Your task to perform on an android device: turn off location history Image 0: 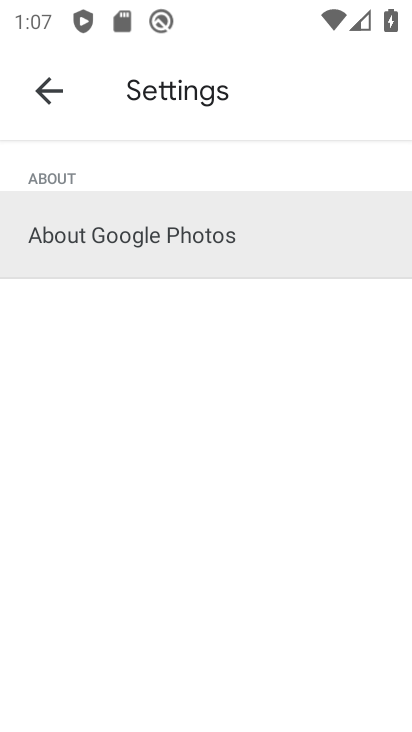
Step 0: press home button
Your task to perform on an android device: turn off location history Image 1: 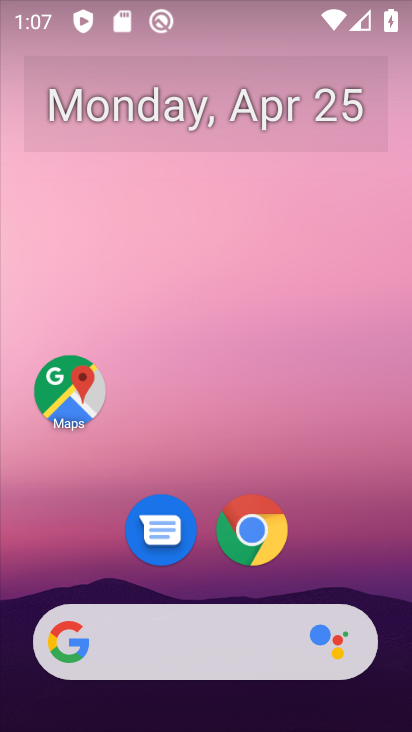
Step 1: drag from (382, 567) to (344, 174)
Your task to perform on an android device: turn off location history Image 2: 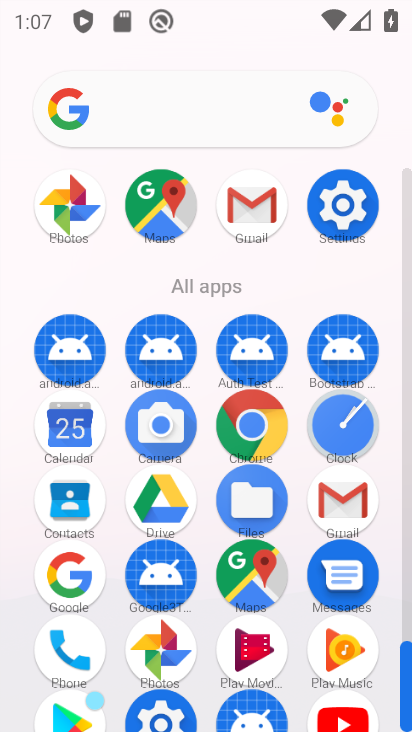
Step 2: click (344, 213)
Your task to perform on an android device: turn off location history Image 3: 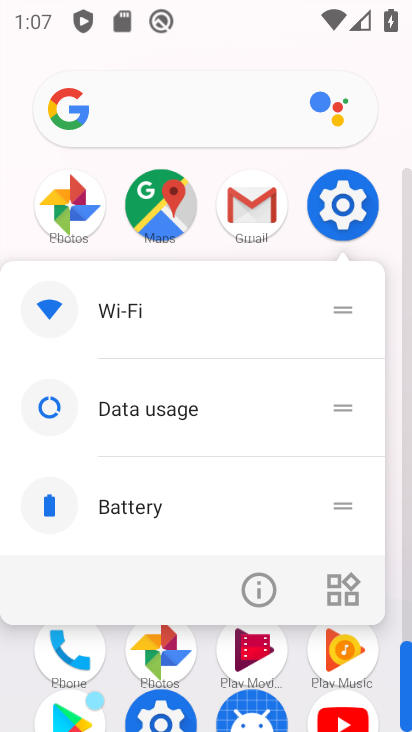
Step 3: click (342, 214)
Your task to perform on an android device: turn off location history Image 4: 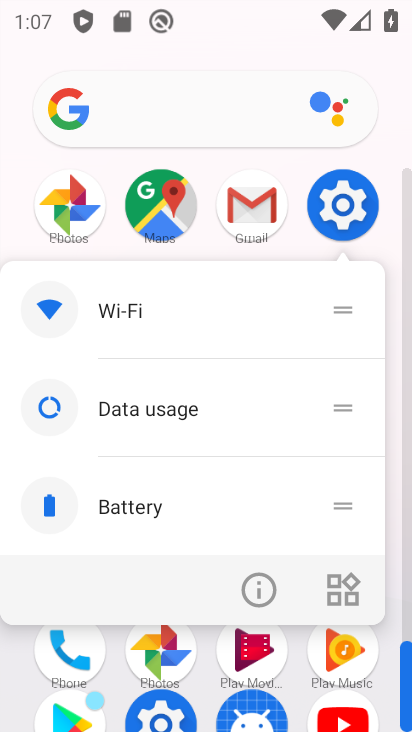
Step 4: click (338, 231)
Your task to perform on an android device: turn off location history Image 5: 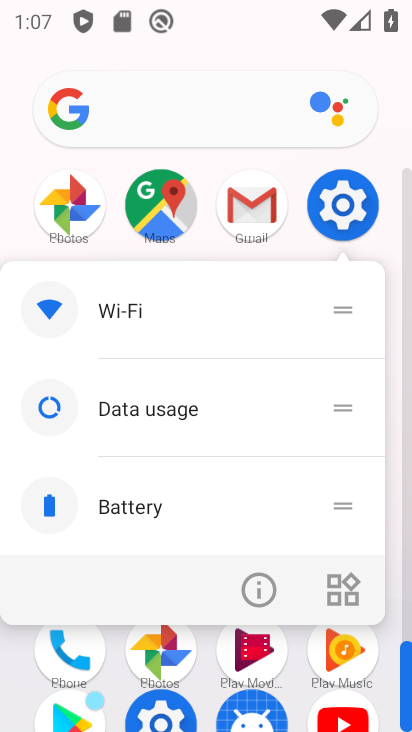
Step 5: click (339, 239)
Your task to perform on an android device: turn off location history Image 6: 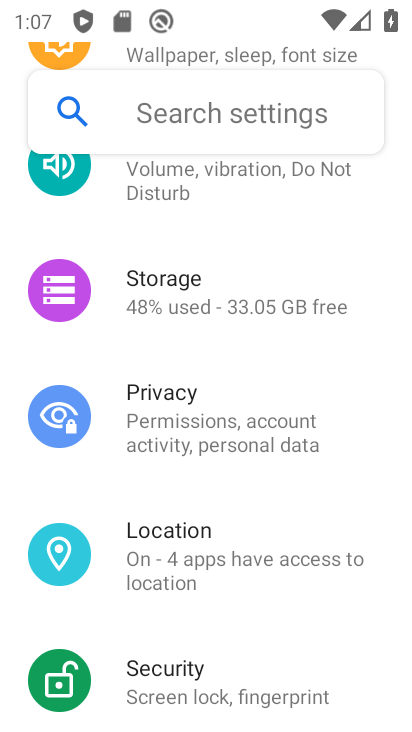
Step 6: drag from (230, 522) to (262, 330)
Your task to perform on an android device: turn off location history Image 7: 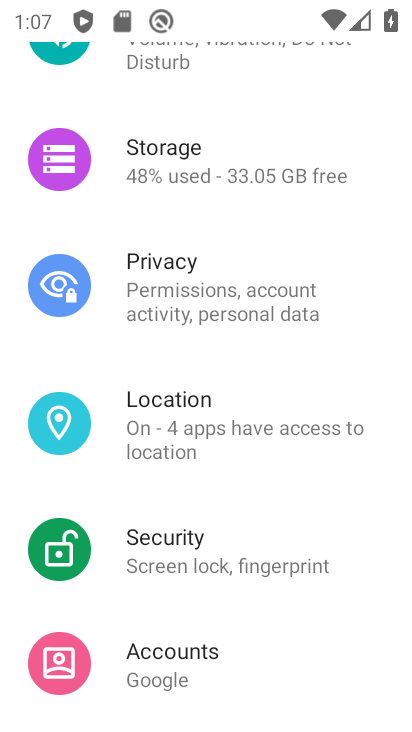
Step 7: drag from (284, 645) to (295, 368)
Your task to perform on an android device: turn off location history Image 8: 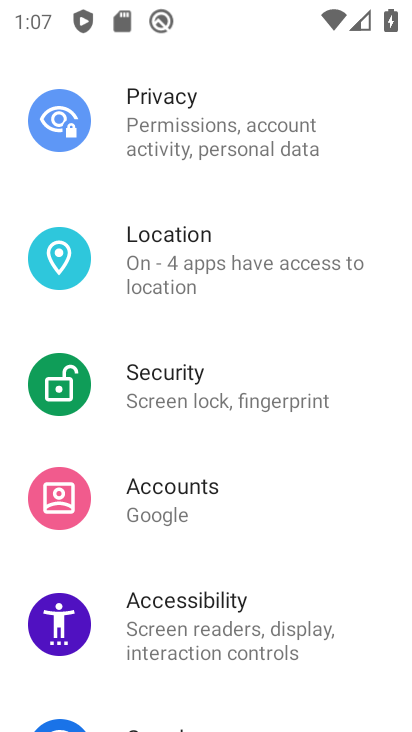
Step 8: drag from (263, 513) to (284, 207)
Your task to perform on an android device: turn off location history Image 9: 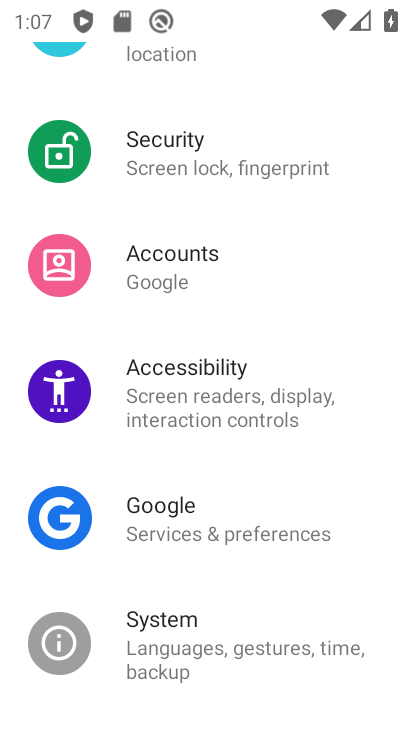
Step 9: drag from (267, 572) to (279, 268)
Your task to perform on an android device: turn off location history Image 10: 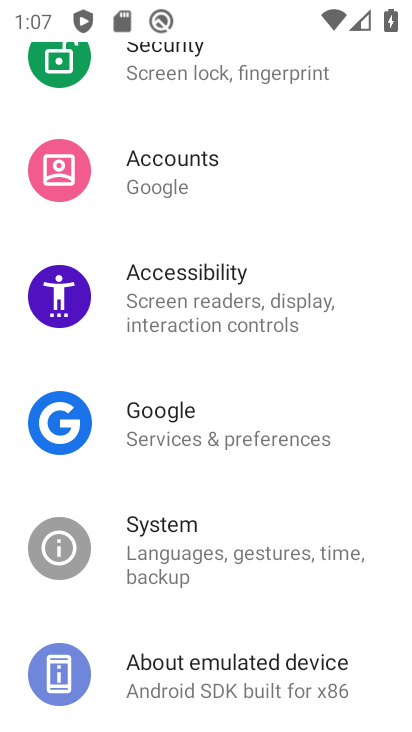
Step 10: drag from (231, 179) to (232, 457)
Your task to perform on an android device: turn off location history Image 11: 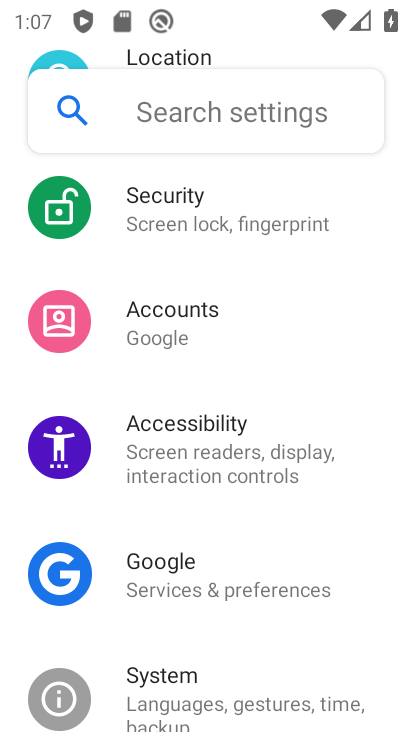
Step 11: drag from (224, 156) to (265, 412)
Your task to perform on an android device: turn off location history Image 12: 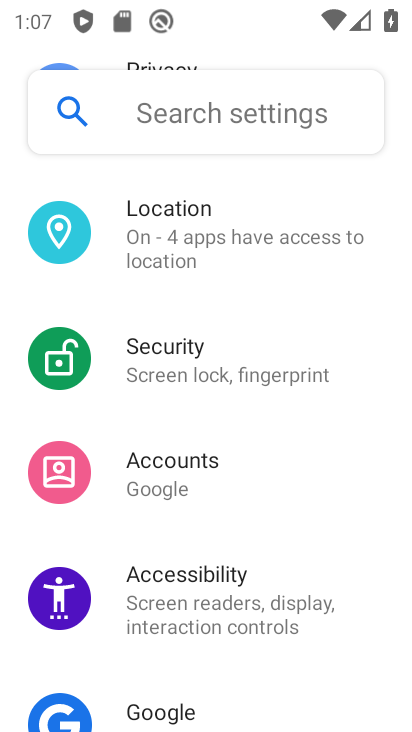
Step 12: click (231, 243)
Your task to perform on an android device: turn off location history Image 13: 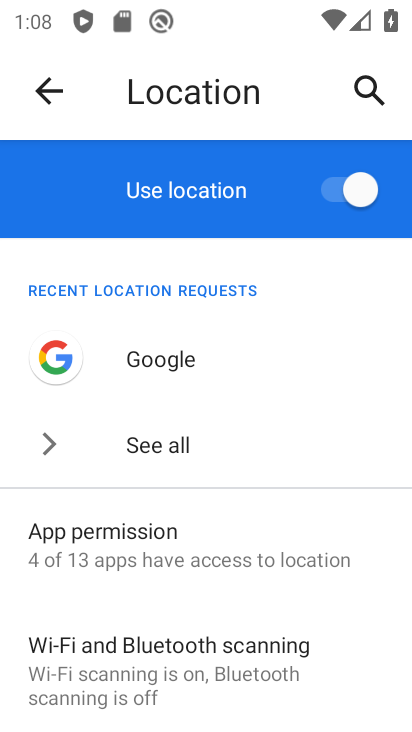
Step 13: drag from (324, 629) to (333, 325)
Your task to perform on an android device: turn off location history Image 14: 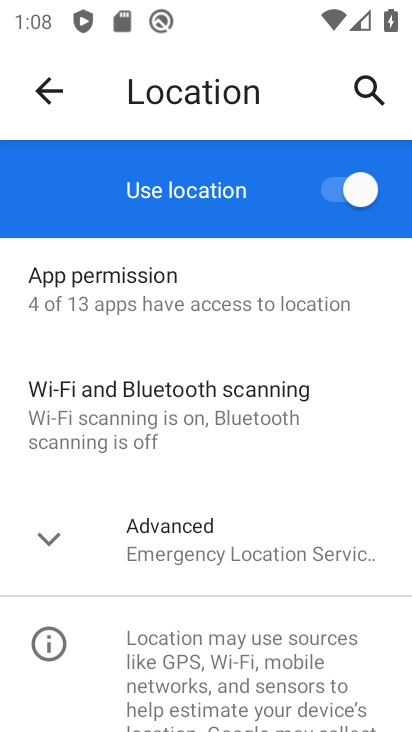
Step 14: click (292, 543)
Your task to perform on an android device: turn off location history Image 15: 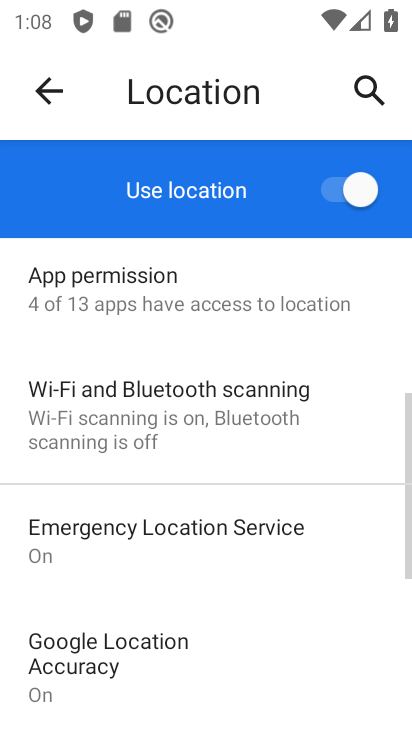
Step 15: task complete